Your task to perform on an android device: change keyboard looks Image 0: 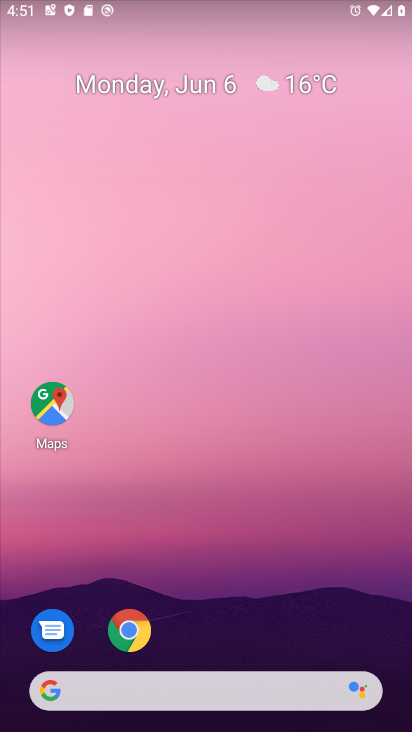
Step 0: drag from (255, 562) to (142, 15)
Your task to perform on an android device: change keyboard looks Image 1: 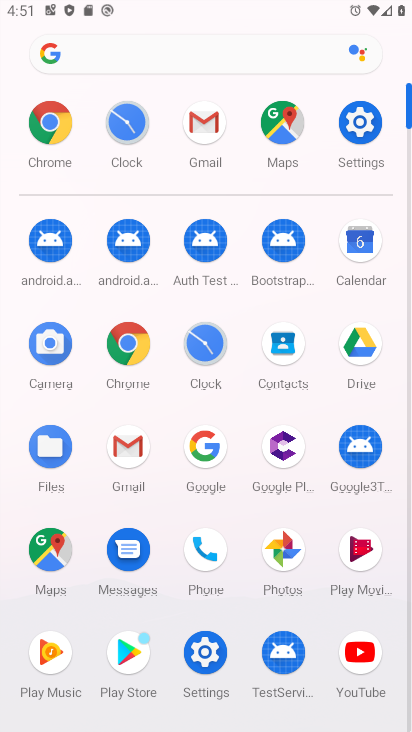
Step 1: click (366, 221)
Your task to perform on an android device: change keyboard looks Image 2: 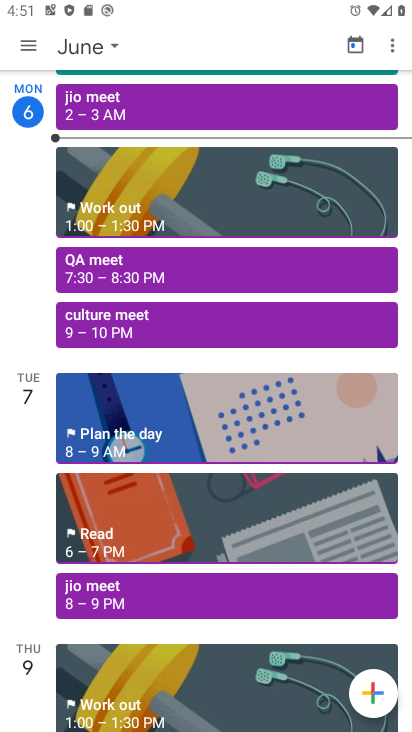
Step 2: press back button
Your task to perform on an android device: change keyboard looks Image 3: 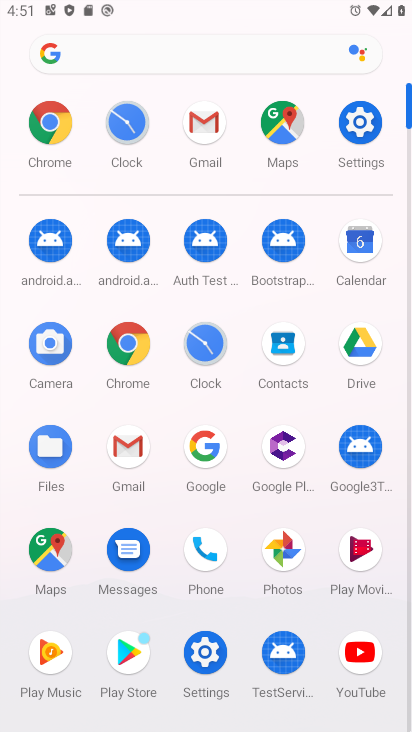
Step 3: click (370, 121)
Your task to perform on an android device: change keyboard looks Image 4: 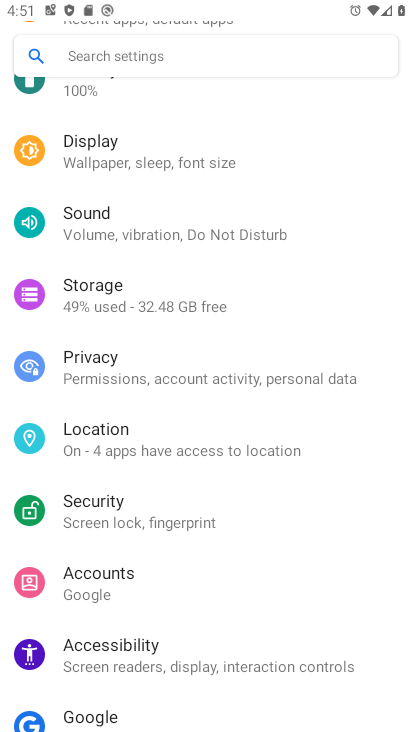
Step 4: drag from (260, 625) to (225, 71)
Your task to perform on an android device: change keyboard looks Image 5: 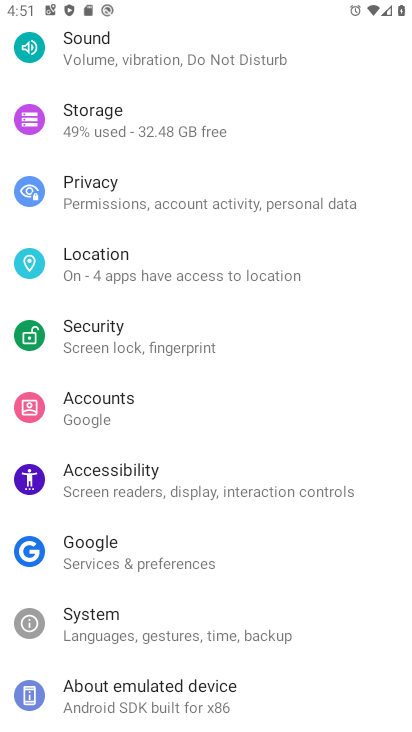
Step 5: click (199, 619)
Your task to perform on an android device: change keyboard looks Image 6: 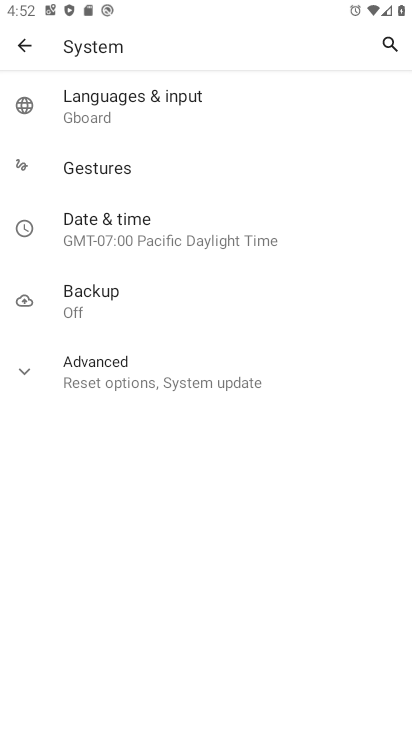
Step 6: click (165, 117)
Your task to perform on an android device: change keyboard looks Image 7: 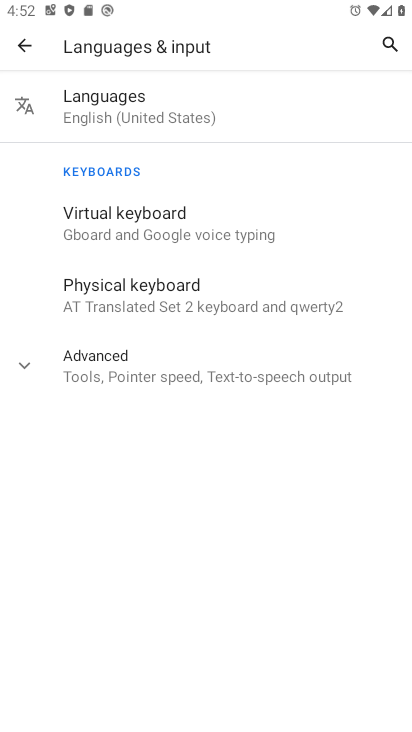
Step 7: click (163, 224)
Your task to perform on an android device: change keyboard looks Image 8: 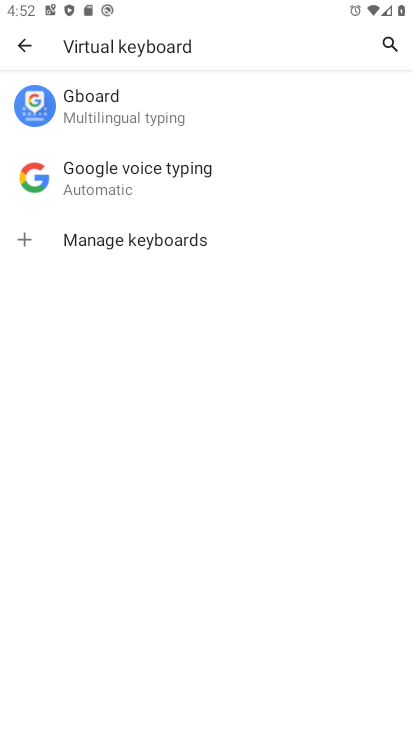
Step 8: click (166, 110)
Your task to perform on an android device: change keyboard looks Image 9: 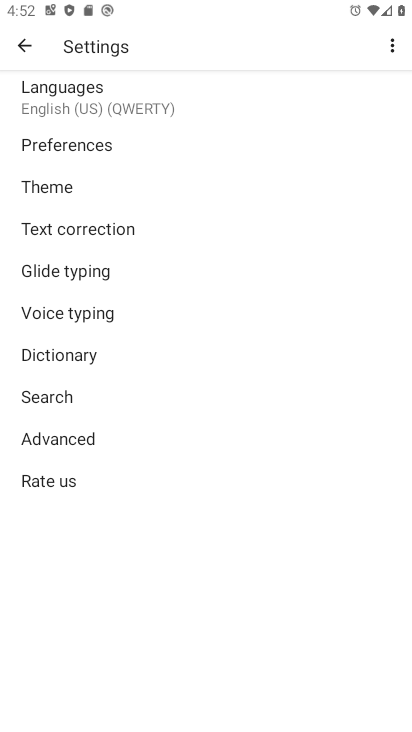
Step 9: click (137, 184)
Your task to perform on an android device: change keyboard looks Image 10: 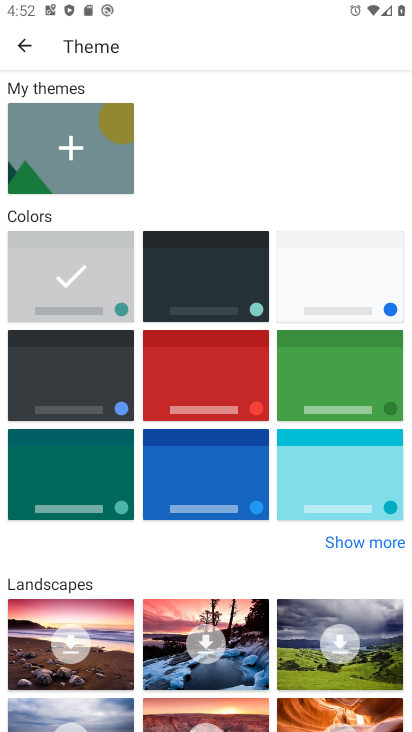
Step 10: click (205, 398)
Your task to perform on an android device: change keyboard looks Image 11: 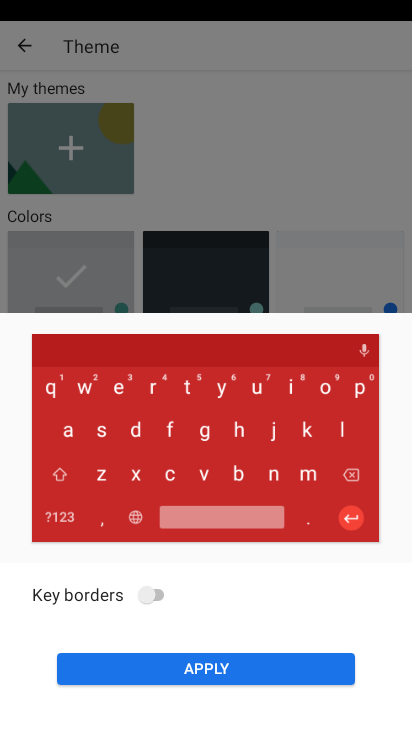
Step 11: click (252, 669)
Your task to perform on an android device: change keyboard looks Image 12: 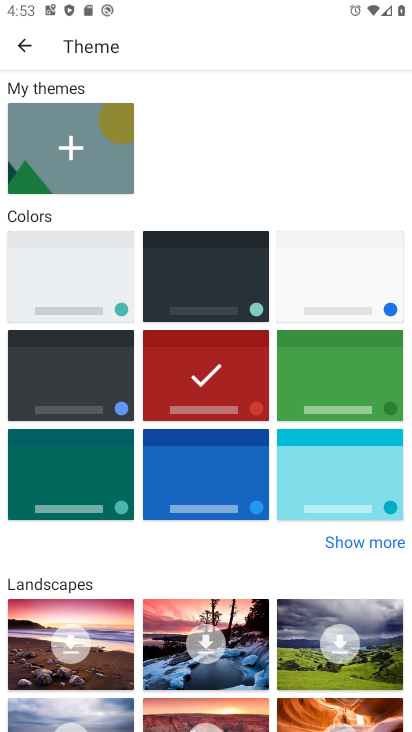
Step 12: task complete